Your task to perform on an android device: Go to Amazon Image 0: 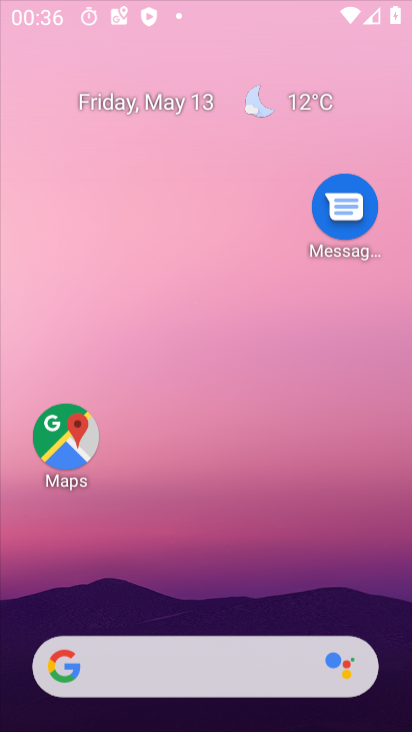
Step 0: press home button
Your task to perform on an android device: Go to Amazon Image 1: 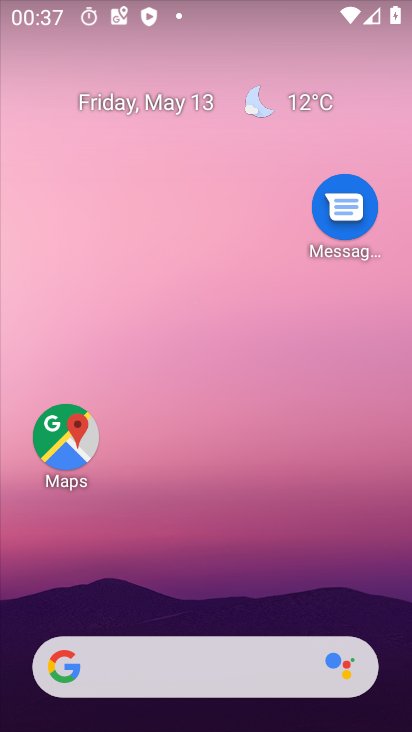
Step 1: drag from (215, 490) to (289, 23)
Your task to perform on an android device: Go to Amazon Image 2: 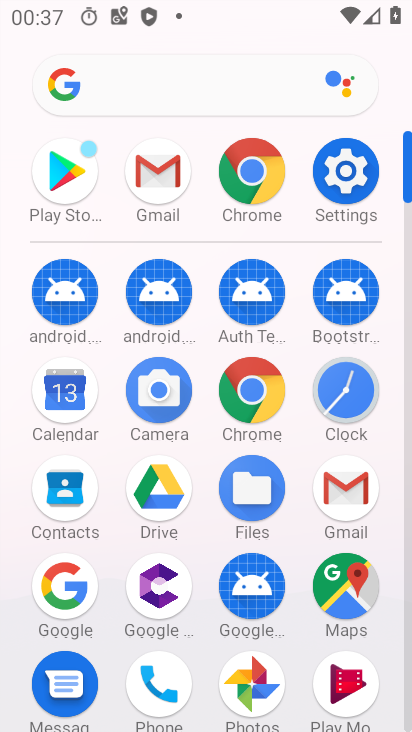
Step 2: click (247, 167)
Your task to perform on an android device: Go to Amazon Image 3: 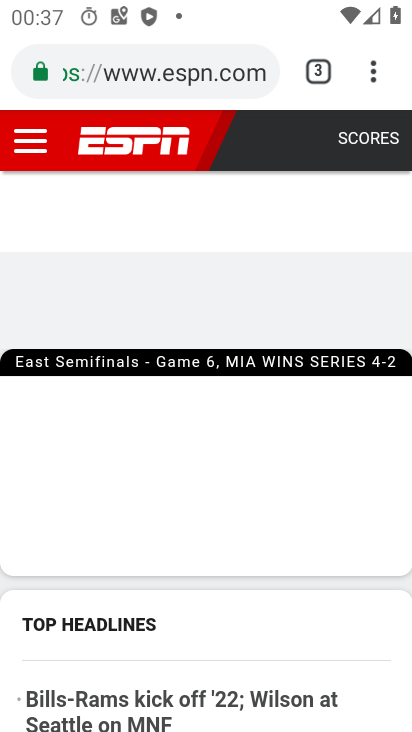
Step 3: click (209, 72)
Your task to perform on an android device: Go to Amazon Image 4: 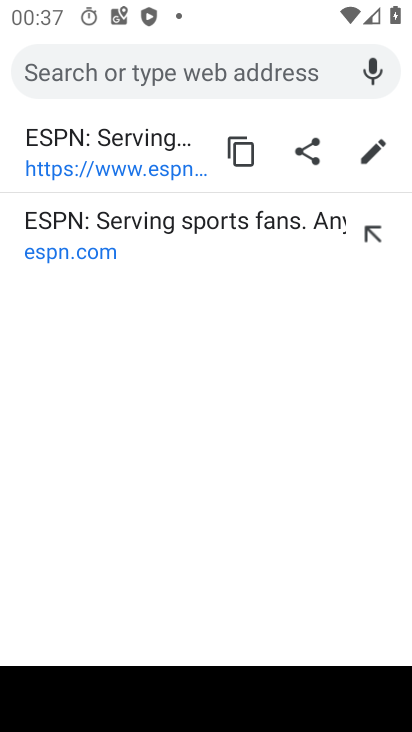
Step 4: type "Amazon"
Your task to perform on an android device: Go to Amazon Image 5: 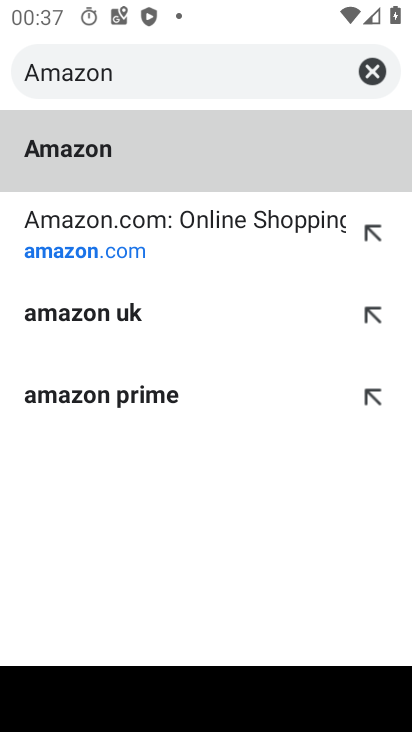
Step 5: click (167, 147)
Your task to perform on an android device: Go to Amazon Image 6: 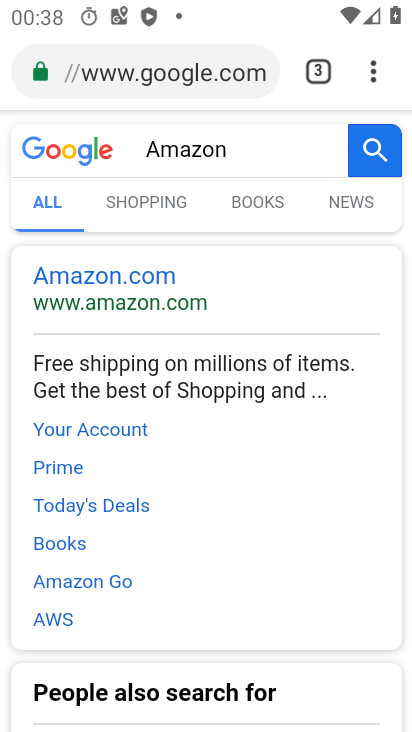
Step 6: click (303, 433)
Your task to perform on an android device: Go to Amazon Image 7: 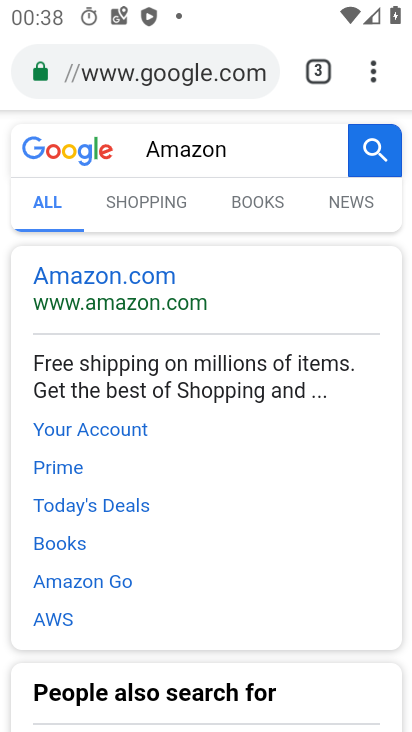
Step 7: click (90, 318)
Your task to perform on an android device: Go to Amazon Image 8: 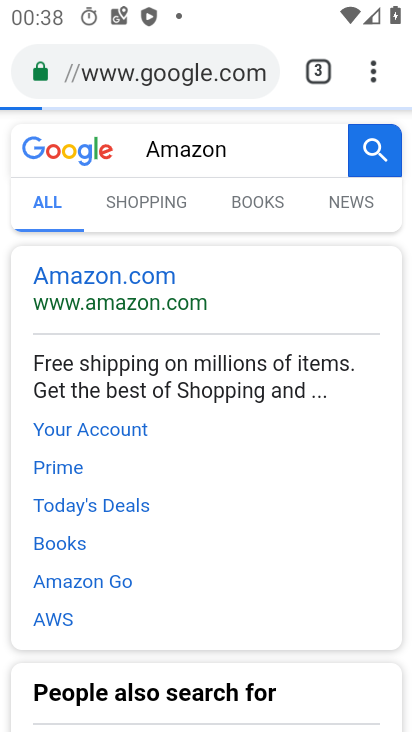
Step 8: click (76, 289)
Your task to perform on an android device: Go to Amazon Image 9: 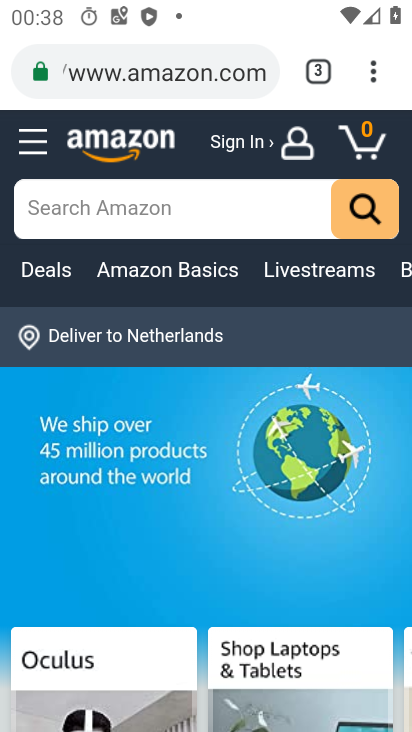
Step 9: task complete